Your task to perform on an android device: make emails show in primary in the gmail app Image 0: 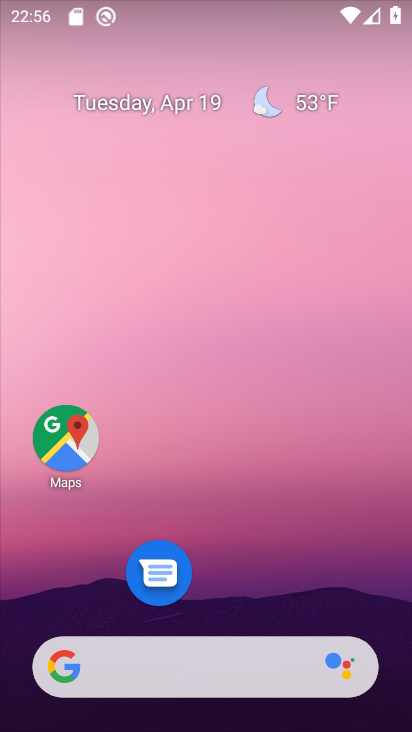
Step 0: drag from (217, 591) to (308, 135)
Your task to perform on an android device: make emails show in primary in the gmail app Image 1: 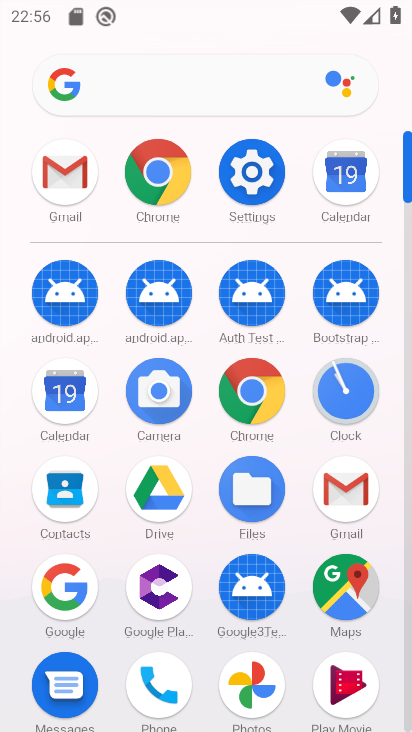
Step 1: click (345, 482)
Your task to perform on an android device: make emails show in primary in the gmail app Image 2: 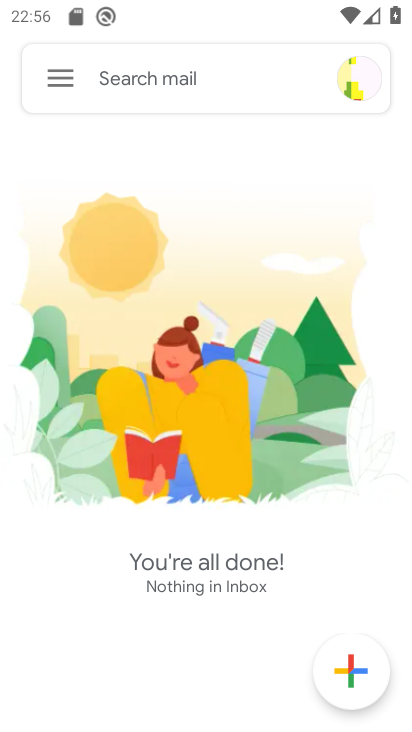
Step 2: click (64, 74)
Your task to perform on an android device: make emails show in primary in the gmail app Image 3: 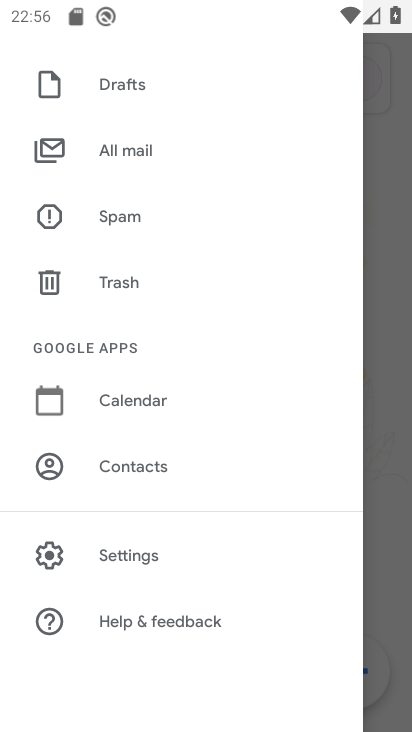
Step 3: click (124, 549)
Your task to perform on an android device: make emails show in primary in the gmail app Image 4: 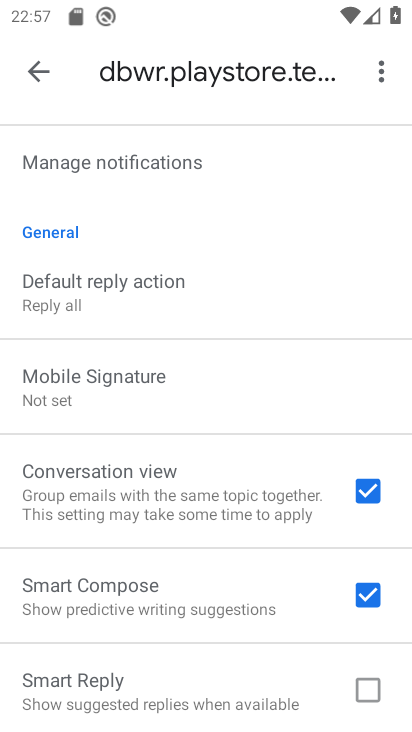
Step 4: drag from (160, 170) to (160, 594)
Your task to perform on an android device: make emails show in primary in the gmail app Image 5: 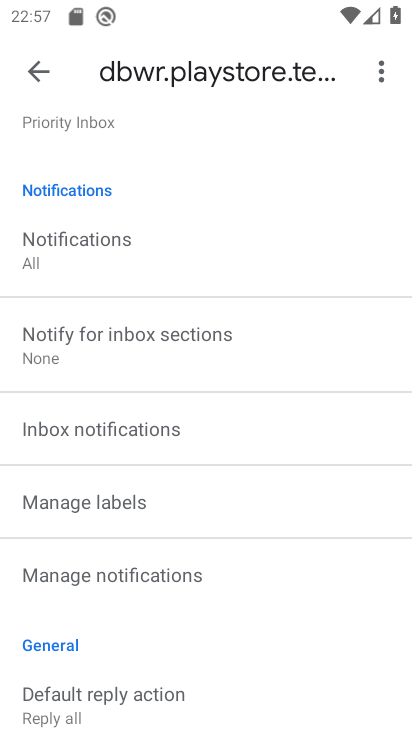
Step 5: drag from (163, 189) to (169, 601)
Your task to perform on an android device: make emails show in primary in the gmail app Image 6: 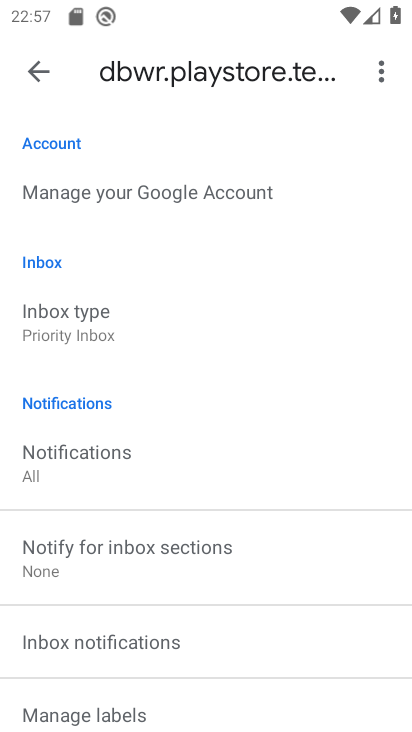
Step 6: click (124, 310)
Your task to perform on an android device: make emails show in primary in the gmail app Image 7: 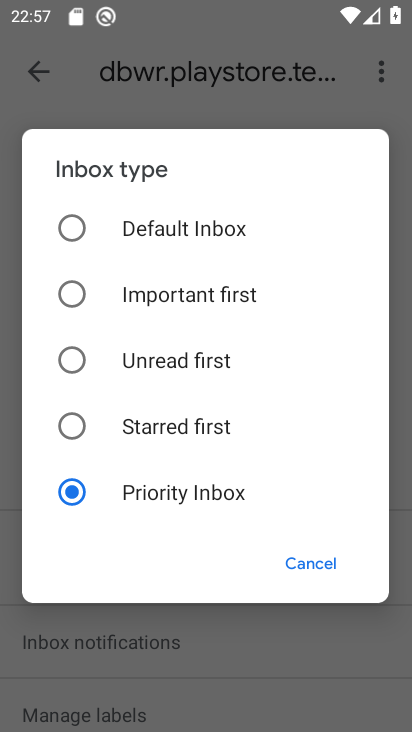
Step 7: click (71, 221)
Your task to perform on an android device: make emails show in primary in the gmail app Image 8: 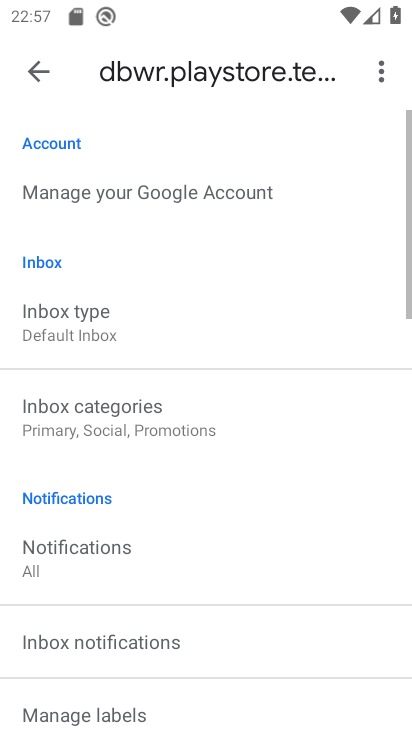
Step 8: task complete